Your task to perform on an android device: turn on notifications settings in the gmail app Image 0: 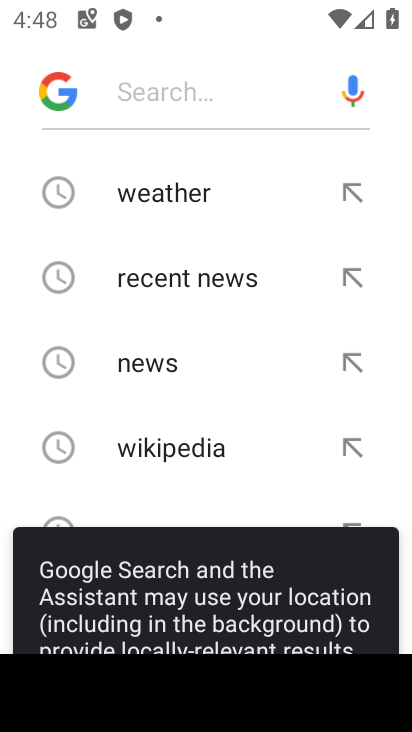
Step 0: press back button
Your task to perform on an android device: turn on notifications settings in the gmail app Image 1: 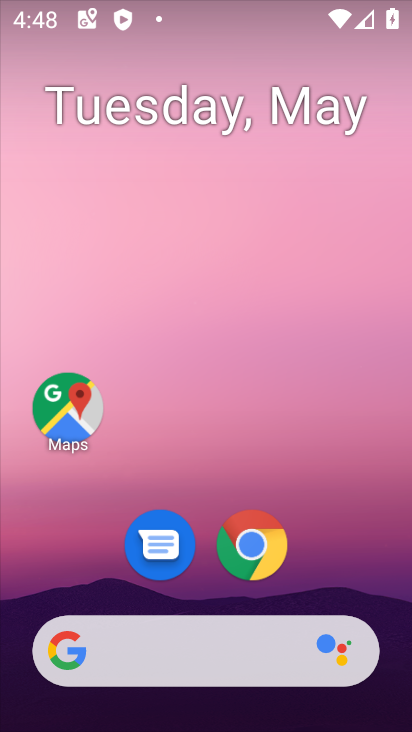
Step 1: drag from (304, 558) to (302, 91)
Your task to perform on an android device: turn on notifications settings in the gmail app Image 2: 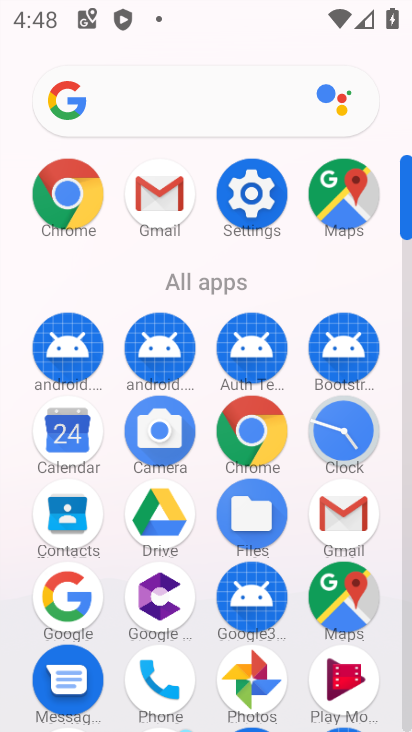
Step 2: drag from (23, 569) to (21, 266)
Your task to perform on an android device: turn on notifications settings in the gmail app Image 3: 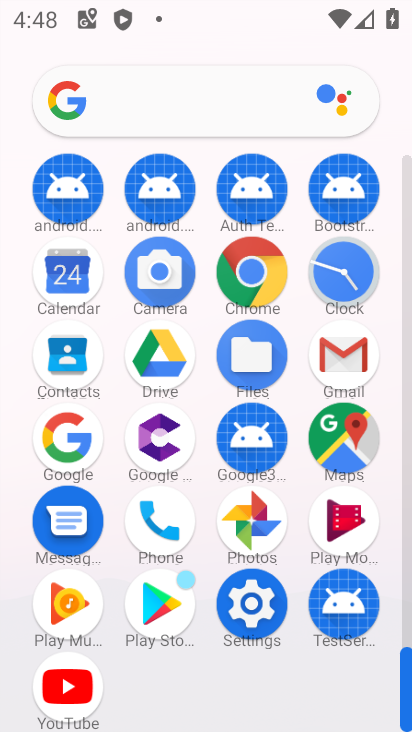
Step 3: click (250, 608)
Your task to perform on an android device: turn on notifications settings in the gmail app Image 4: 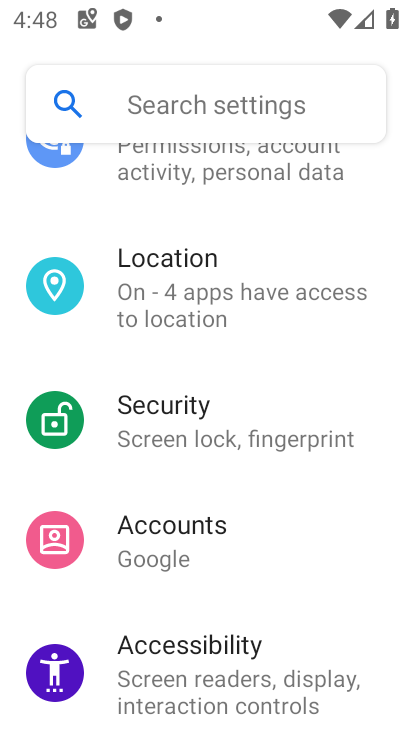
Step 4: drag from (315, 597) to (326, 207)
Your task to perform on an android device: turn on notifications settings in the gmail app Image 5: 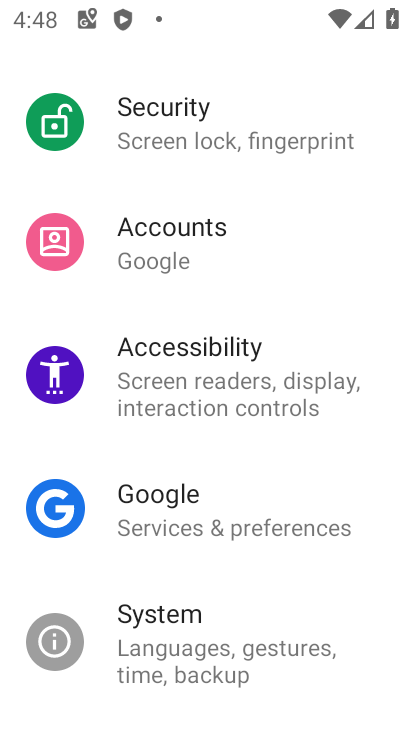
Step 5: drag from (264, 572) to (261, 130)
Your task to perform on an android device: turn on notifications settings in the gmail app Image 6: 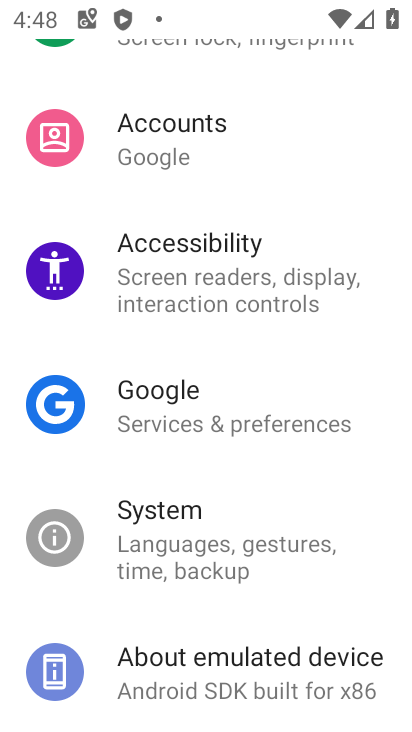
Step 6: drag from (273, 201) to (274, 676)
Your task to perform on an android device: turn on notifications settings in the gmail app Image 7: 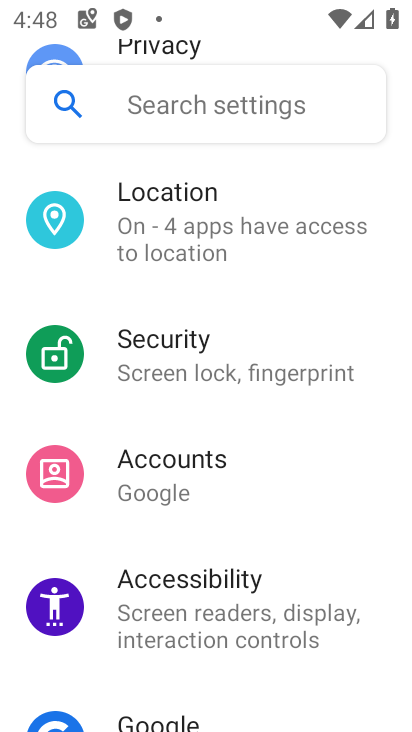
Step 7: drag from (323, 220) to (269, 669)
Your task to perform on an android device: turn on notifications settings in the gmail app Image 8: 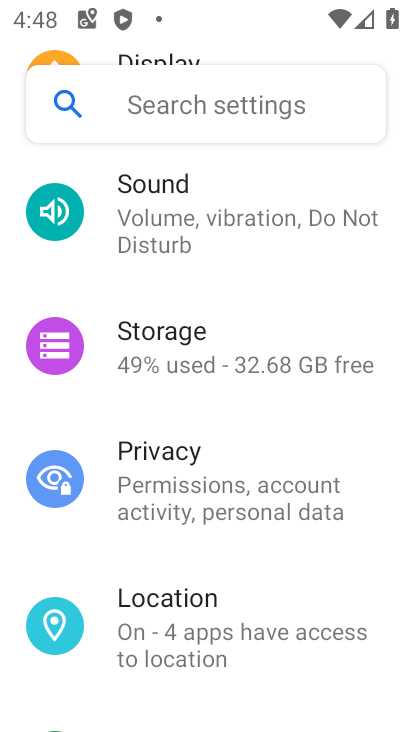
Step 8: drag from (246, 348) to (246, 666)
Your task to perform on an android device: turn on notifications settings in the gmail app Image 9: 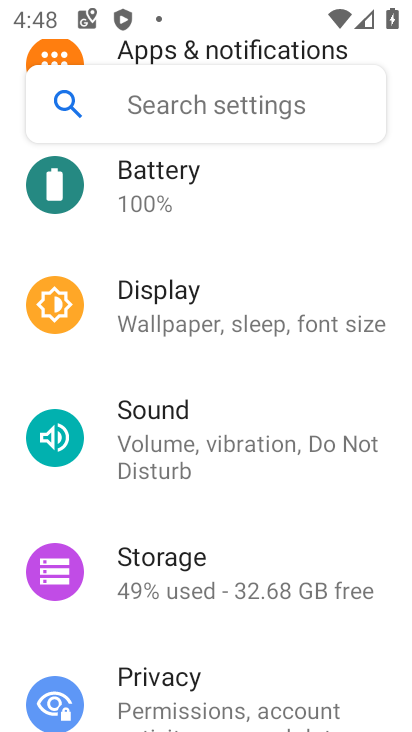
Step 9: drag from (242, 313) to (258, 619)
Your task to perform on an android device: turn on notifications settings in the gmail app Image 10: 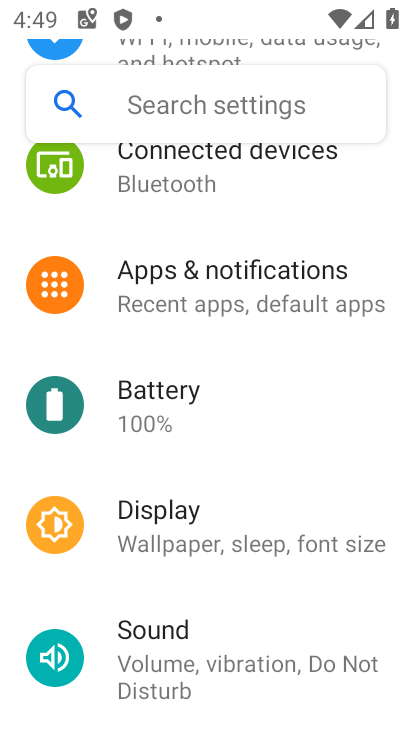
Step 10: drag from (249, 195) to (254, 556)
Your task to perform on an android device: turn on notifications settings in the gmail app Image 11: 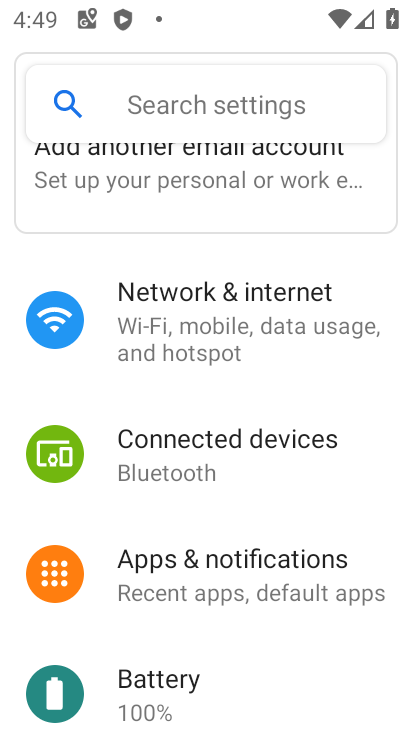
Step 11: click (242, 564)
Your task to perform on an android device: turn on notifications settings in the gmail app Image 12: 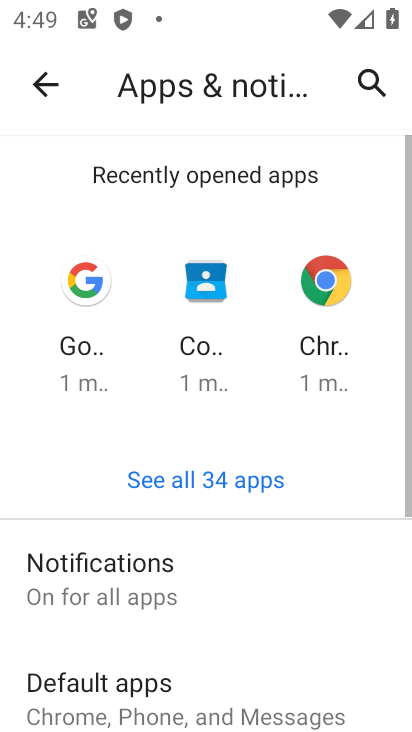
Step 12: click (204, 630)
Your task to perform on an android device: turn on notifications settings in the gmail app Image 13: 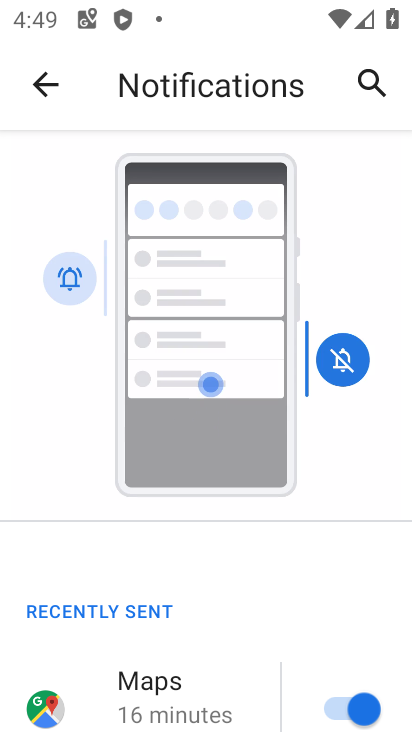
Step 13: drag from (200, 571) to (224, 121)
Your task to perform on an android device: turn on notifications settings in the gmail app Image 14: 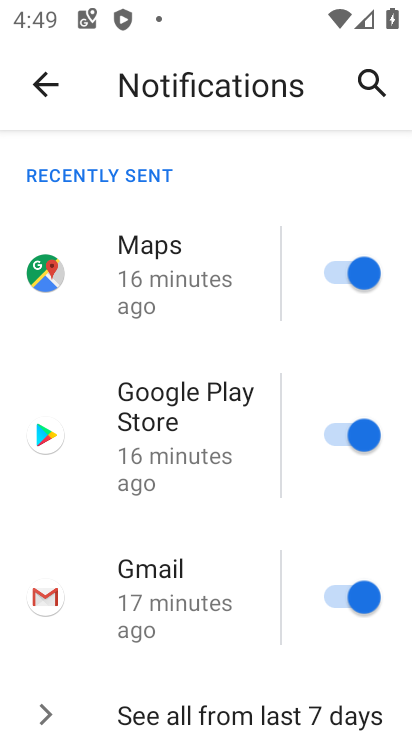
Step 14: drag from (169, 599) to (196, 180)
Your task to perform on an android device: turn on notifications settings in the gmail app Image 15: 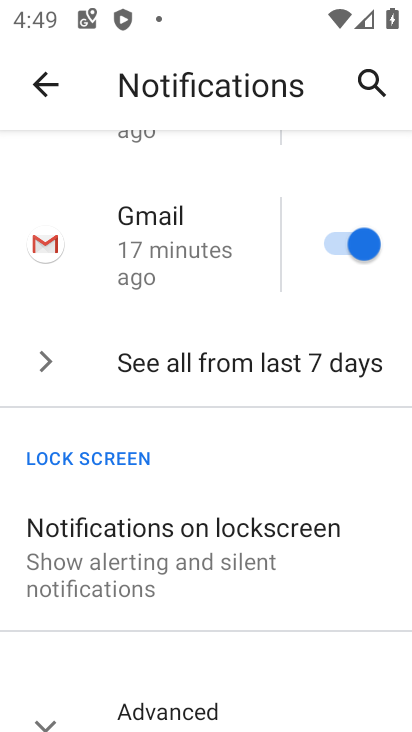
Step 15: drag from (185, 667) to (217, 270)
Your task to perform on an android device: turn on notifications settings in the gmail app Image 16: 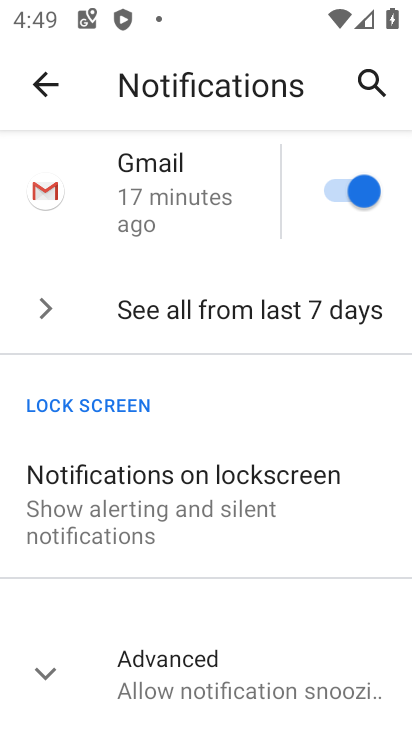
Step 16: click (199, 481)
Your task to perform on an android device: turn on notifications settings in the gmail app Image 17: 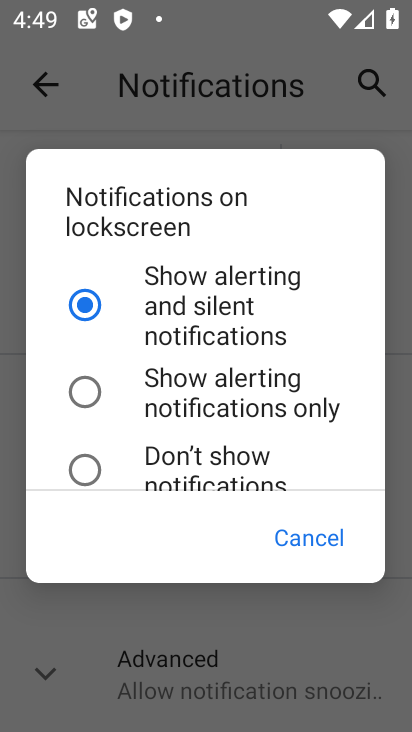
Step 17: click (194, 300)
Your task to perform on an android device: turn on notifications settings in the gmail app Image 18: 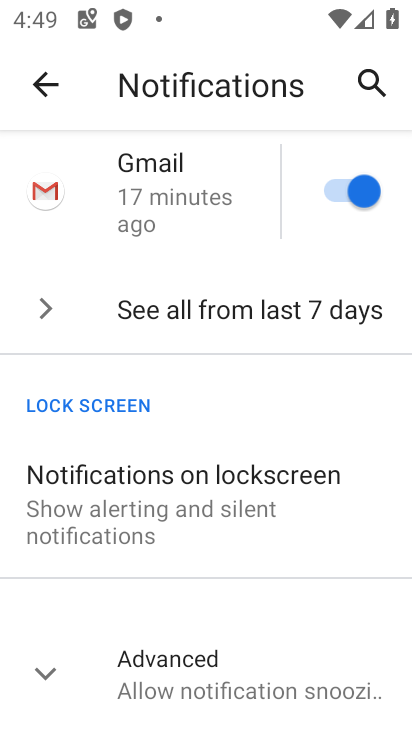
Step 18: drag from (193, 609) to (215, 300)
Your task to perform on an android device: turn on notifications settings in the gmail app Image 19: 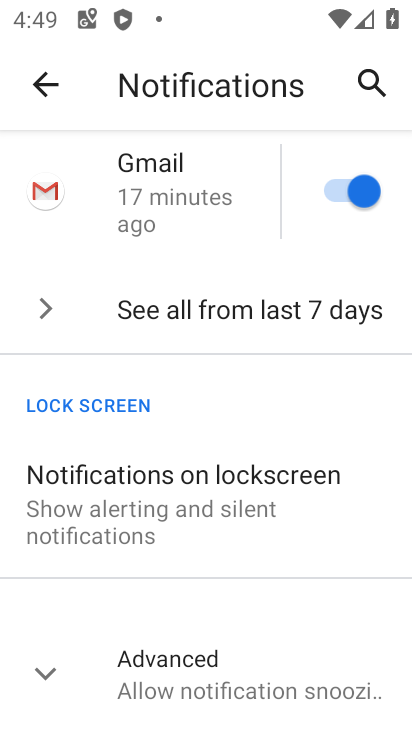
Step 19: click (35, 93)
Your task to perform on an android device: turn on notifications settings in the gmail app Image 20: 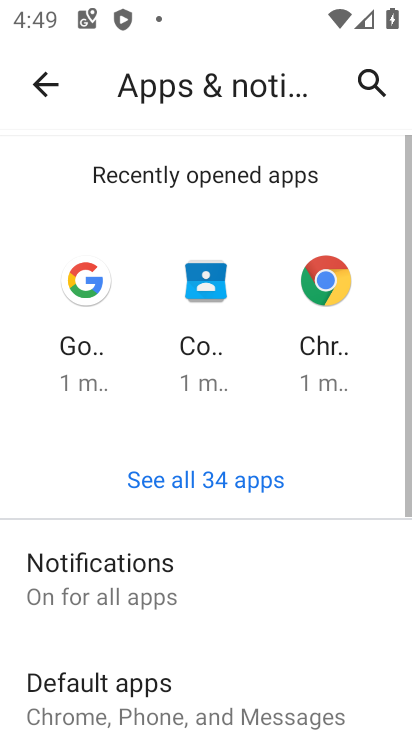
Step 20: drag from (207, 642) to (245, 225)
Your task to perform on an android device: turn on notifications settings in the gmail app Image 21: 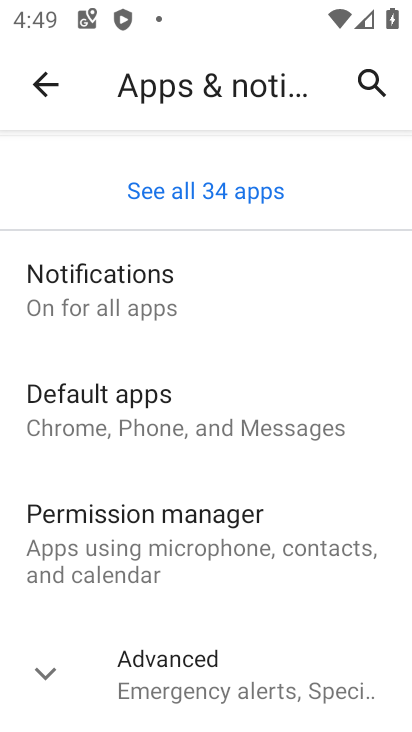
Step 21: click (58, 680)
Your task to perform on an android device: turn on notifications settings in the gmail app Image 22: 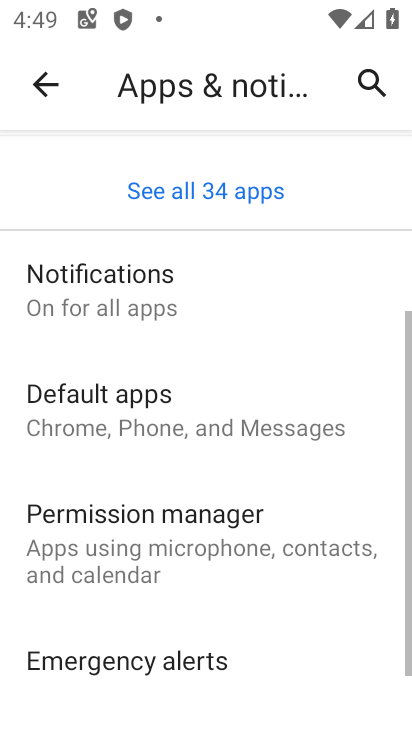
Step 22: drag from (268, 638) to (259, 215)
Your task to perform on an android device: turn on notifications settings in the gmail app Image 23: 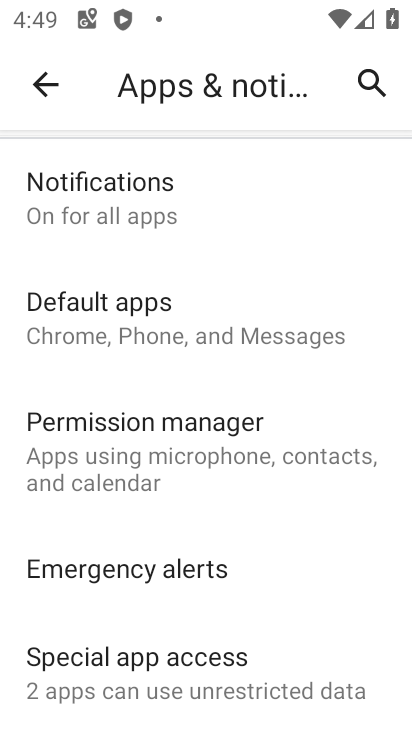
Step 23: drag from (234, 261) to (202, 605)
Your task to perform on an android device: turn on notifications settings in the gmail app Image 24: 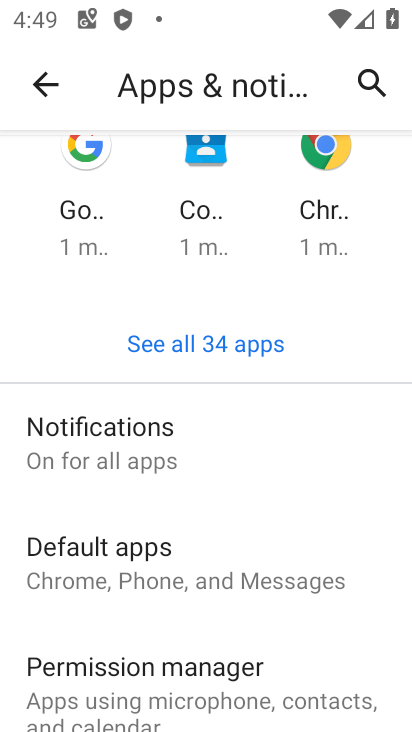
Step 24: drag from (271, 224) to (234, 584)
Your task to perform on an android device: turn on notifications settings in the gmail app Image 25: 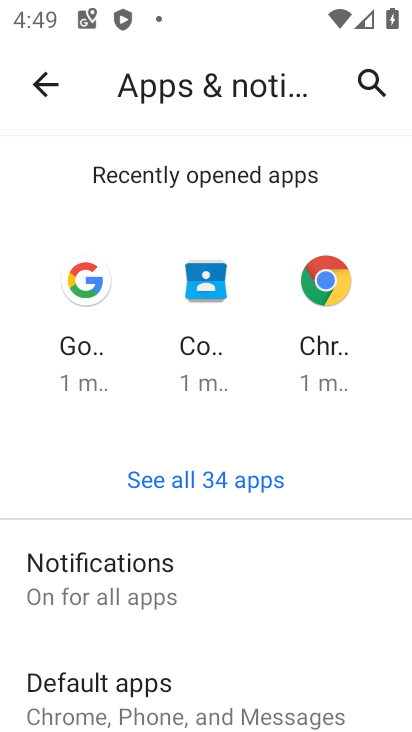
Step 25: click (168, 554)
Your task to perform on an android device: turn on notifications settings in the gmail app Image 26: 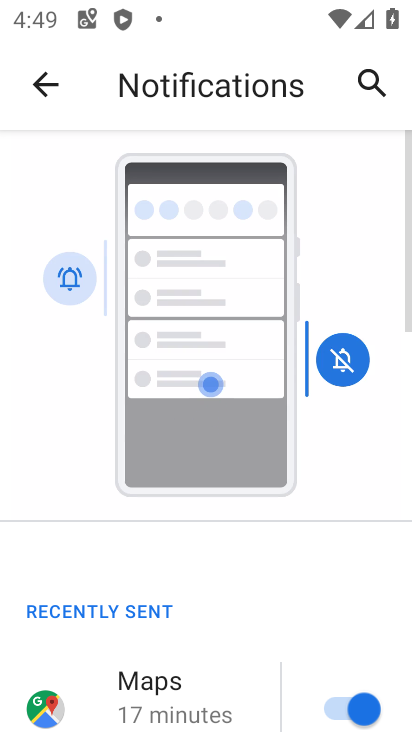
Step 26: task complete